Your task to perform on an android device: toggle show notifications on the lock screen Image 0: 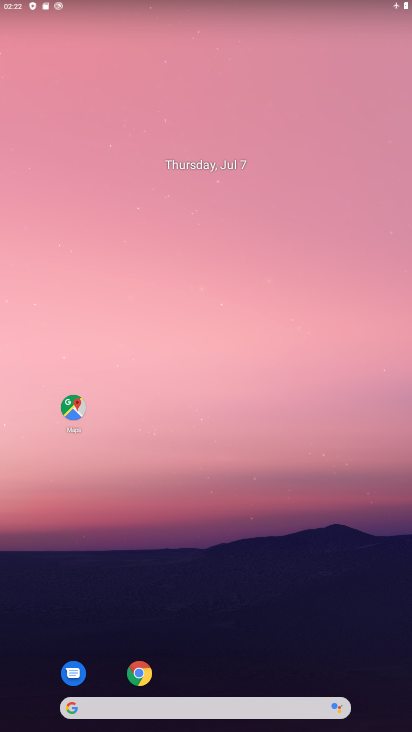
Step 0: drag from (214, 639) to (211, 24)
Your task to perform on an android device: toggle show notifications on the lock screen Image 1: 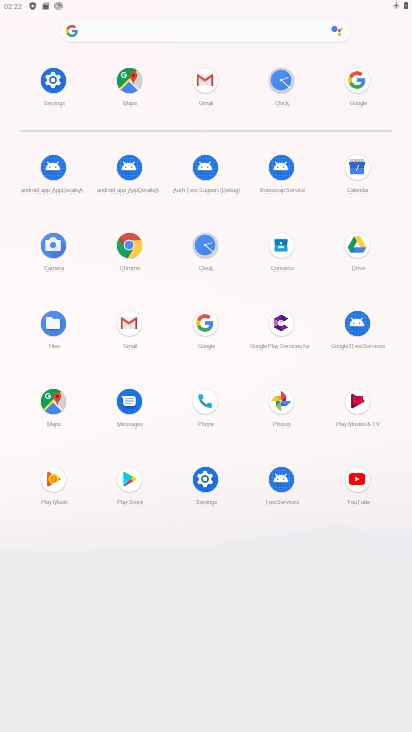
Step 1: click (198, 461)
Your task to perform on an android device: toggle show notifications on the lock screen Image 2: 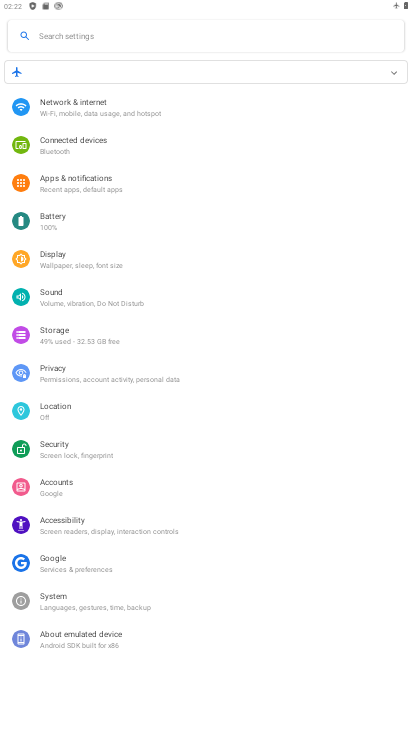
Step 2: click (121, 197)
Your task to perform on an android device: toggle show notifications on the lock screen Image 3: 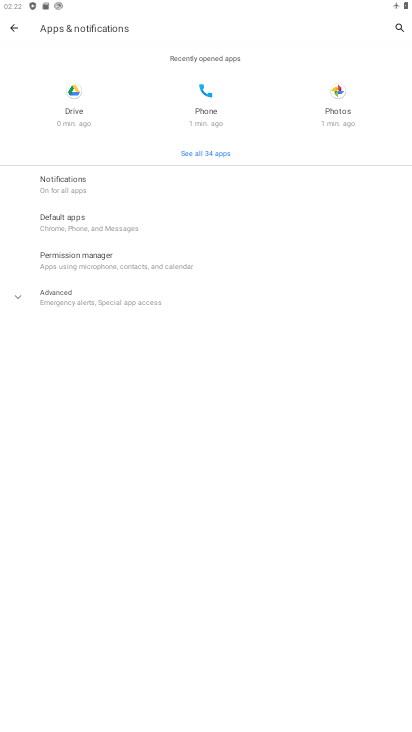
Step 3: click (121, 197)
Your task to perform on an android device: toggle show notifications on the lock screen Image 4: 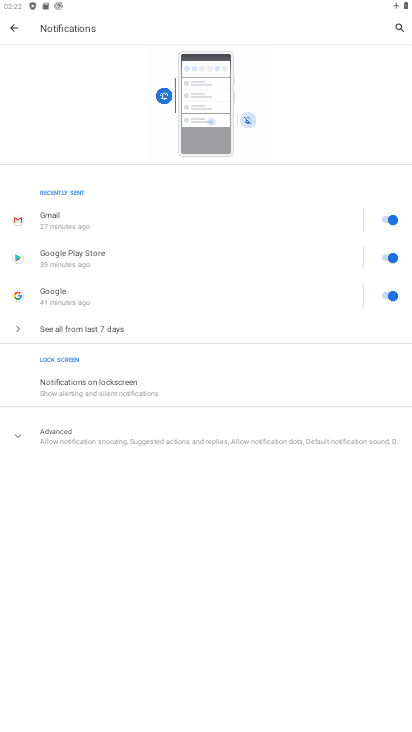
Step 4: click (129, 383)
Your task to perform on an android device: toggle show notifications on the lock screen Image 5: 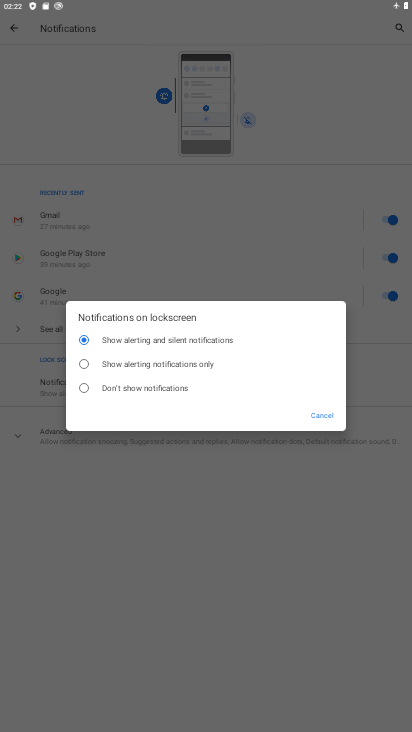
Step 5: click (111, 384)
Your task to perform on an android device: toggle show notifications on the lock screen Image 6: 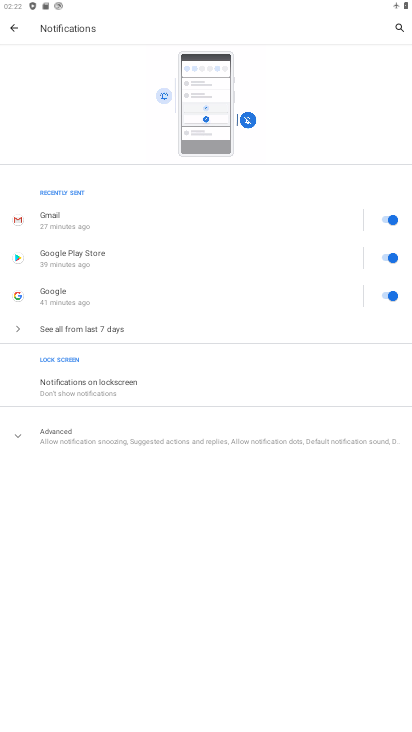
Step 6: task complete